Your task to perform on an android device: Open Yahoo.com Image 0: 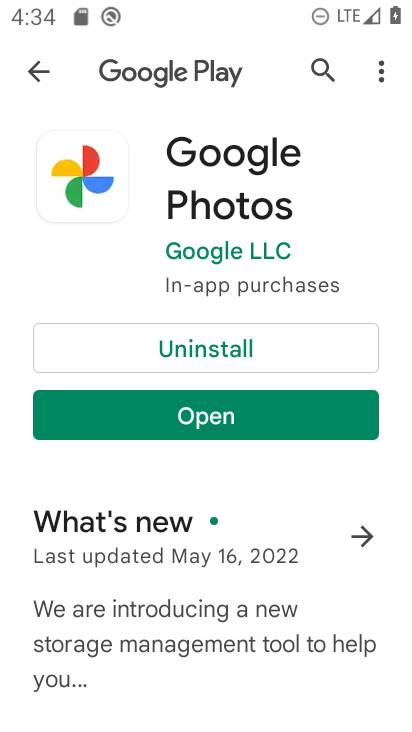
Step 0: press home button
Your task to perform on an android device: Open Yahoo.com Image 1: 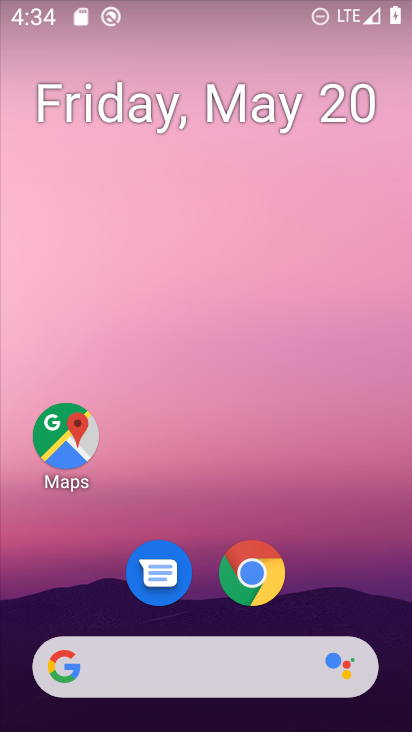
Step 1: click (281, 577)
Your task to perform on an android device: Open Yahoo.com Image 2: 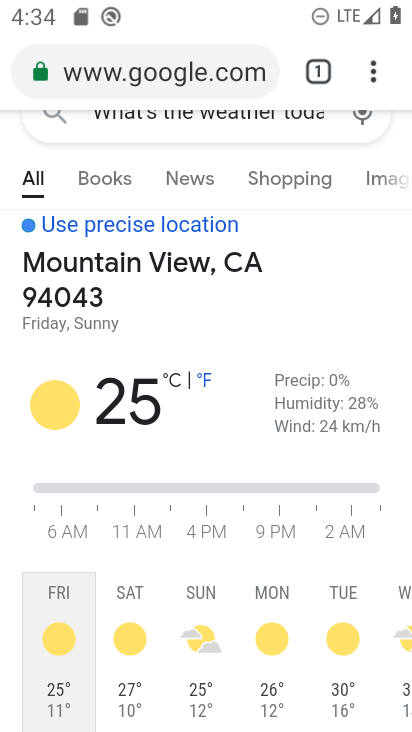
Step 2: click (190, 72)
Your task to perform on an android device: Open Yahoo.com Image 3: 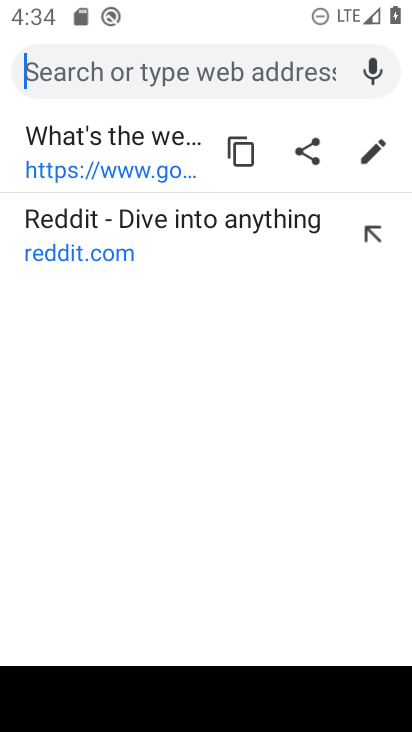
Step 3: type "yahoo.com"
Your task to perform on an android device: Open Yahoo.com Image 4: 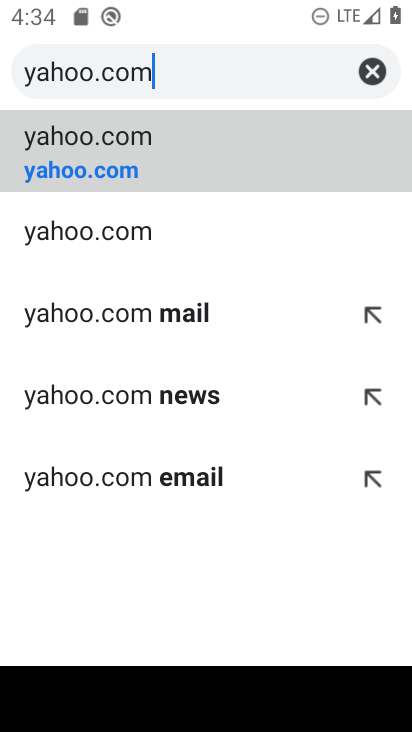
Step 4: click (87, 175)
Your task to perform on an android device: Open Yahoo.com Image 5: 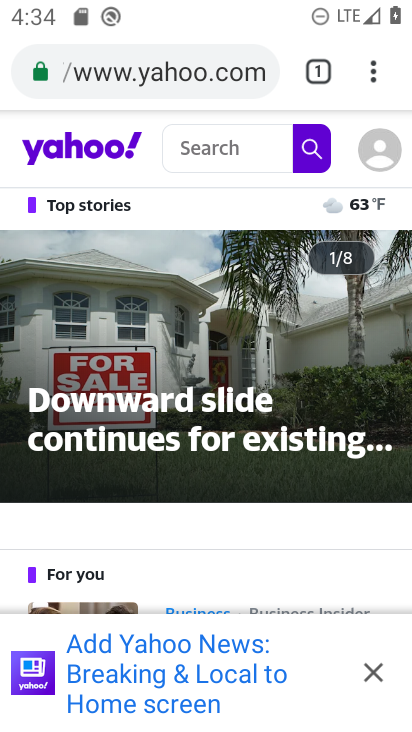
Step 5: task complete